Your task to perform on an android device: Turn off the flashlight Image 0: 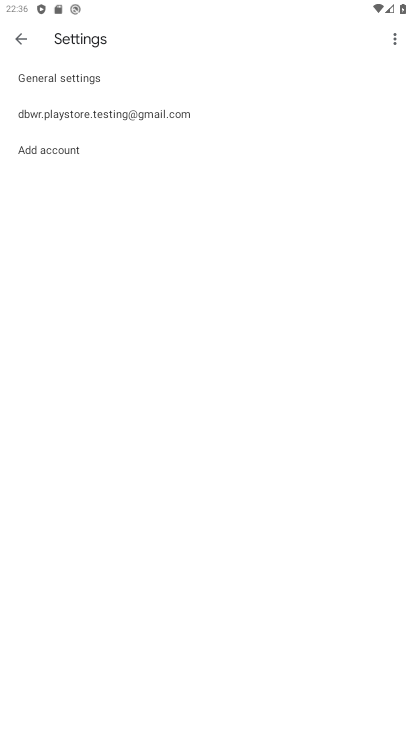
Step 0: press home button
Your task to perform on an android device: Turn off the flashlight Image 1: 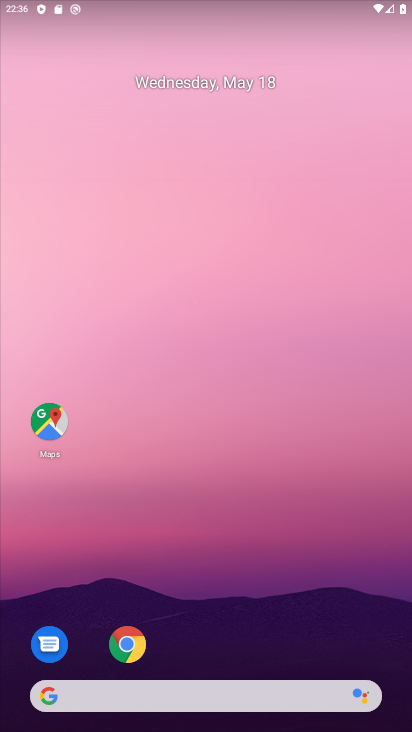
Step 1: drag from (254, 483) to (297, 53)
Your task to perform on an android device: Turn off the flashlight Image 2: 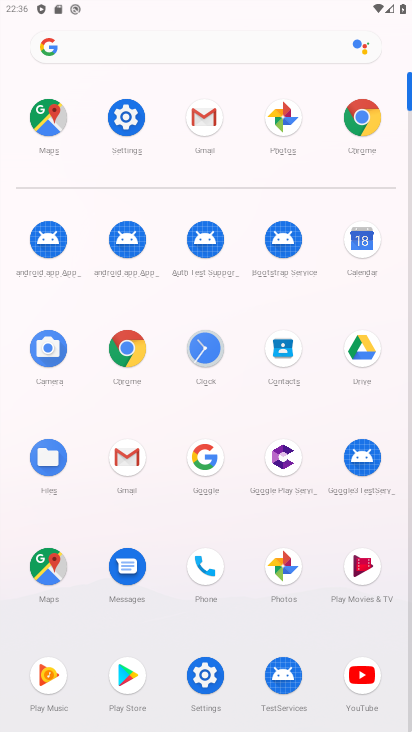
Step 2: click (122, 118)
Your task to perform on an android device: Turn off the flashlight Image 3: 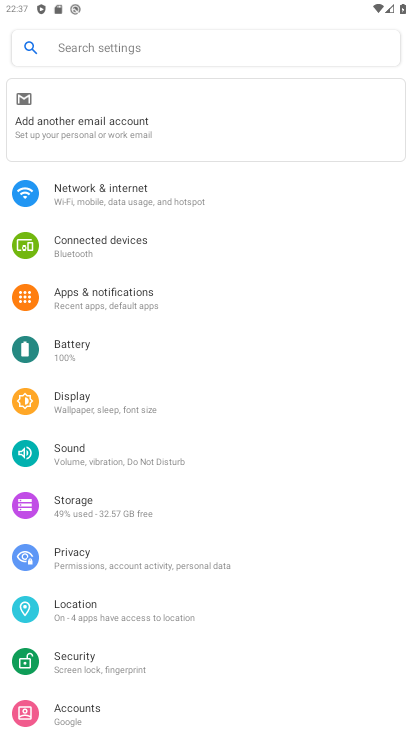
Step 3: click (51, 409)
Your task to perform on an android device: Turn off the flashlight Image 4: 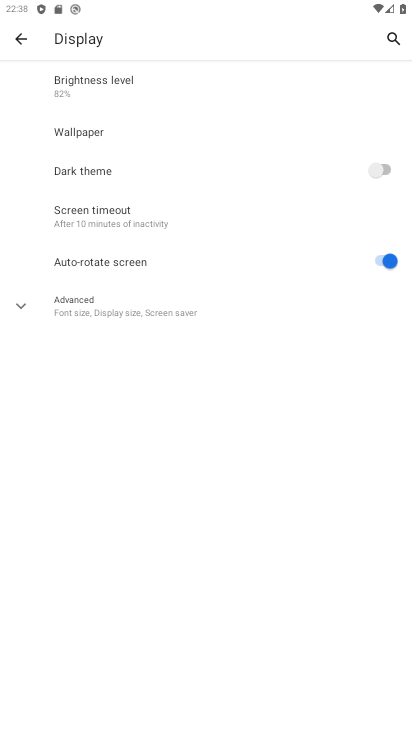
Step 4: task complete